Your task to perform on an android device: Go to Google Image 0: 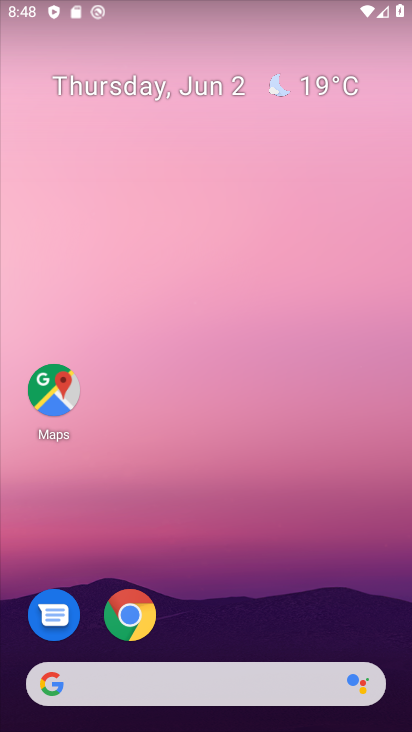
Step 0: drag from (245, 622) to (169, 129)
Your task to perform on an android device: Go to Google Image 1: 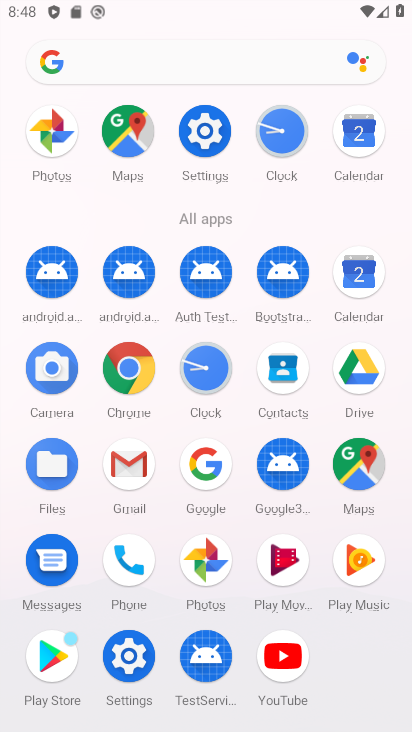
Step 1: click (212, 475)
Your task to perform on an android device: Go to Google Image 2: 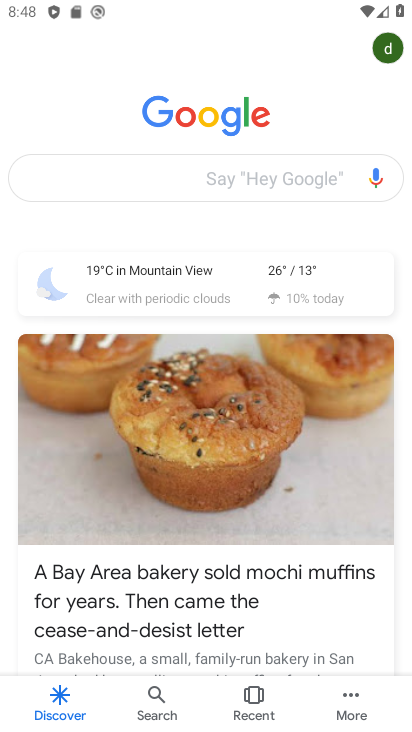
Step 2: task complete